Your task to perform on an android device: delete a single message in the gmail app Image 0: 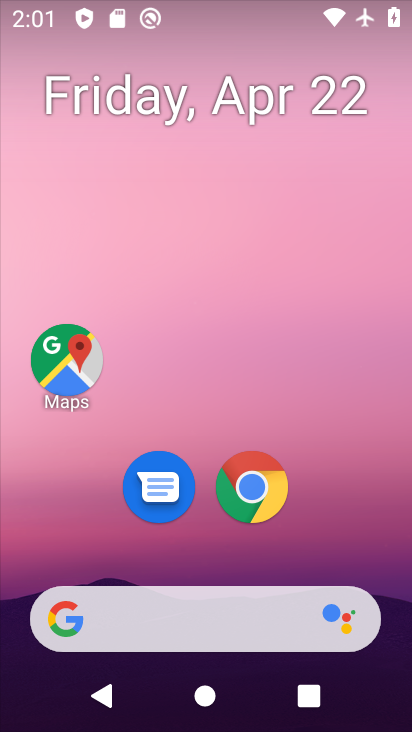
Step 0: drag from (144, 609) to (317, 76)
Your task to perform on an android device: delete a single message in the gmail app Image 1: 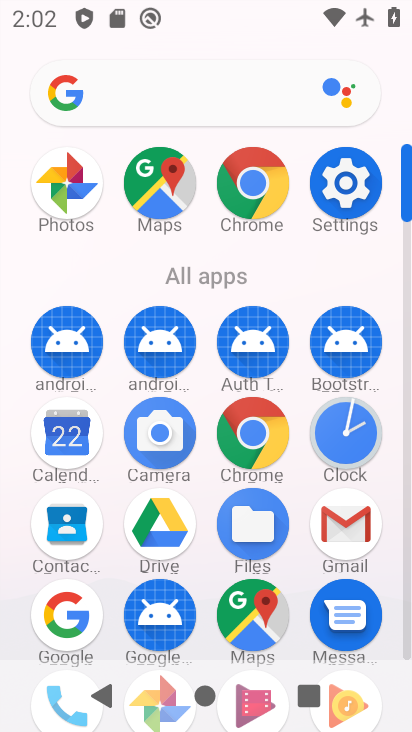
Step 1: click (334, 535)
Your task to perform on an android device: delete a single message in the gmail app Image 2: 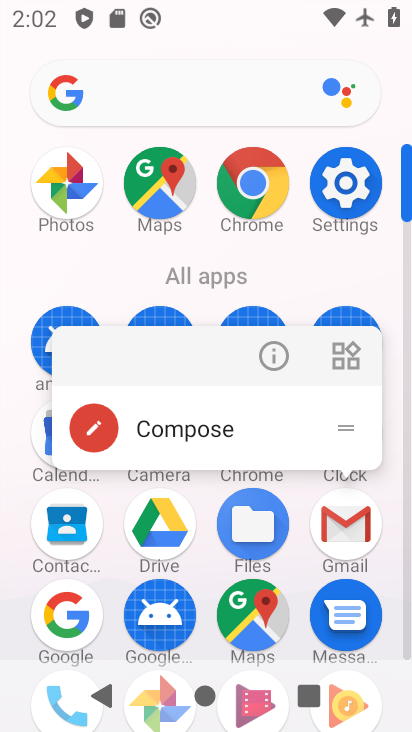
Step 2: click (337, 544)
Your task to perform on an android device: delete a single message in the gmail app Image 3: 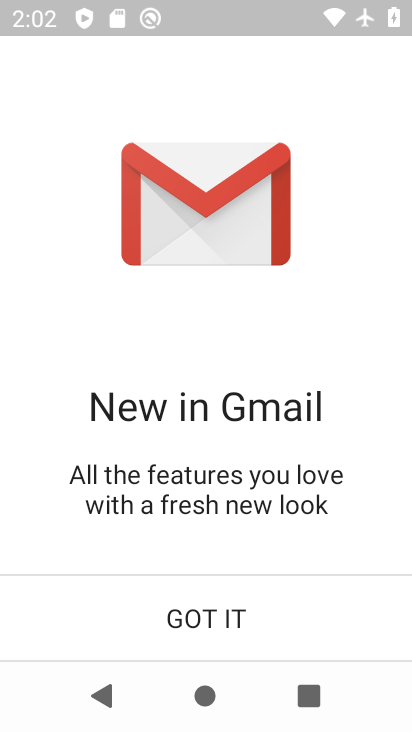
Step 3: click (208, 616)
Your task to perform on an android device: delete a single message in the gmail app Image 4: 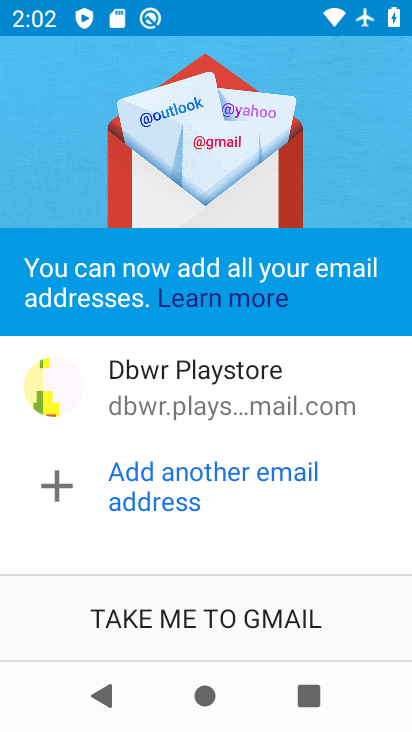
Step 4: click (212, 617)
Your task to perform on an android device: delete a single message in the gmail app Image 5: 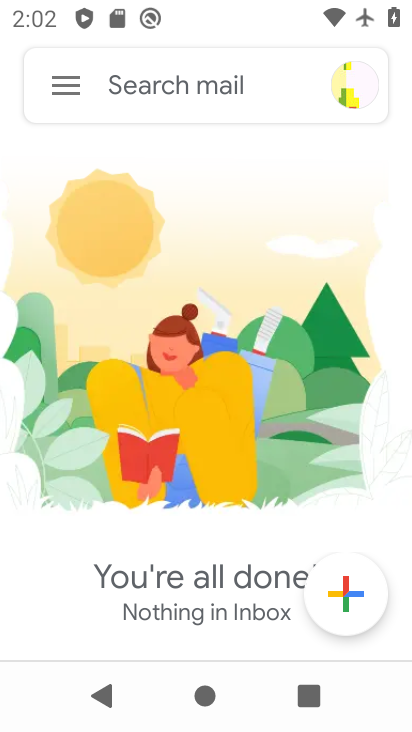
Step 5: task complete